Your task to perform on an android device: What time is it in Beijing? Image 0: 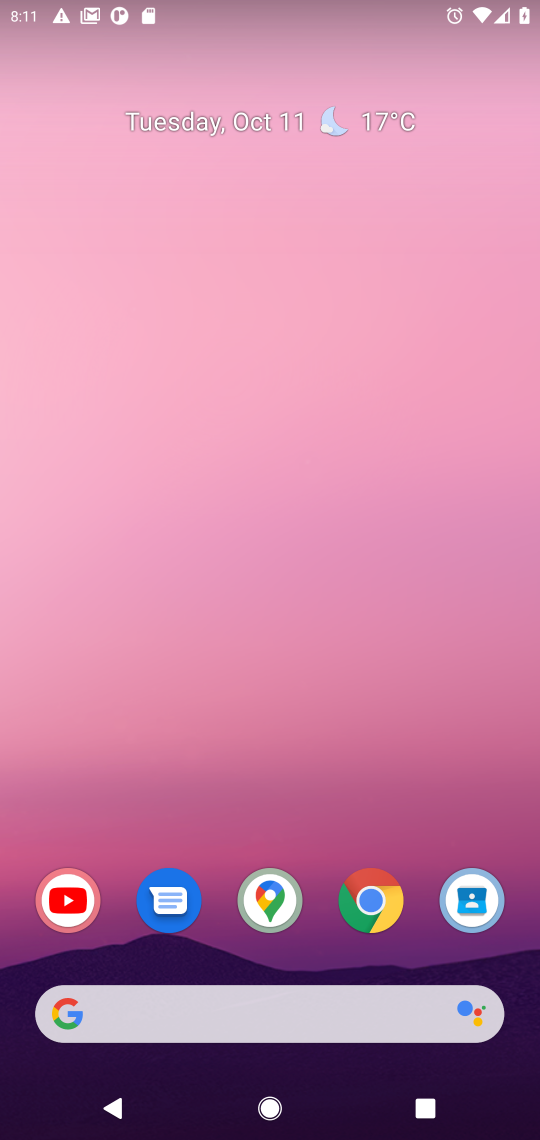
Step 0: click (367, 896)
Your task to perform on an android device: What time is it in Beijing? Image 1: 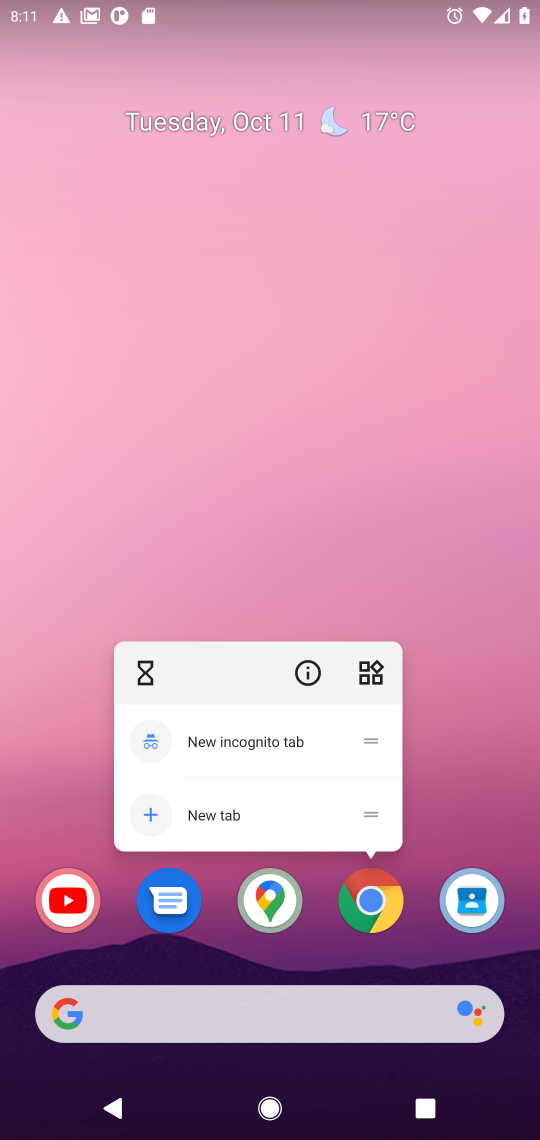
Step 1: click (379, 890)
Your task to perform on an android device: What time is it in Beijing? Image 2: 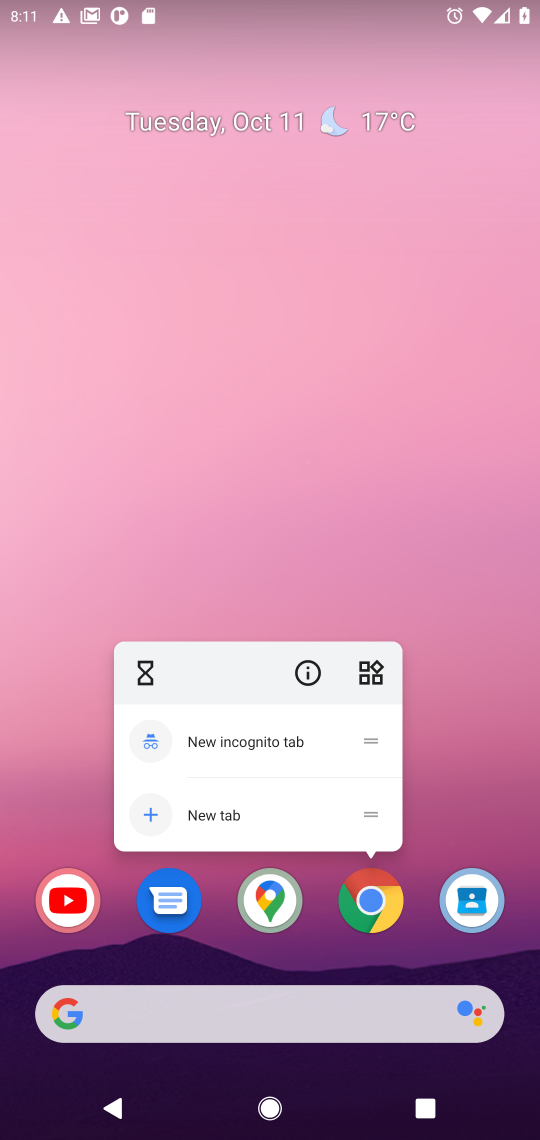
Step 2: click (378, 901)
Your task to perform on an android device: What time is it in Beijing? Image 3: 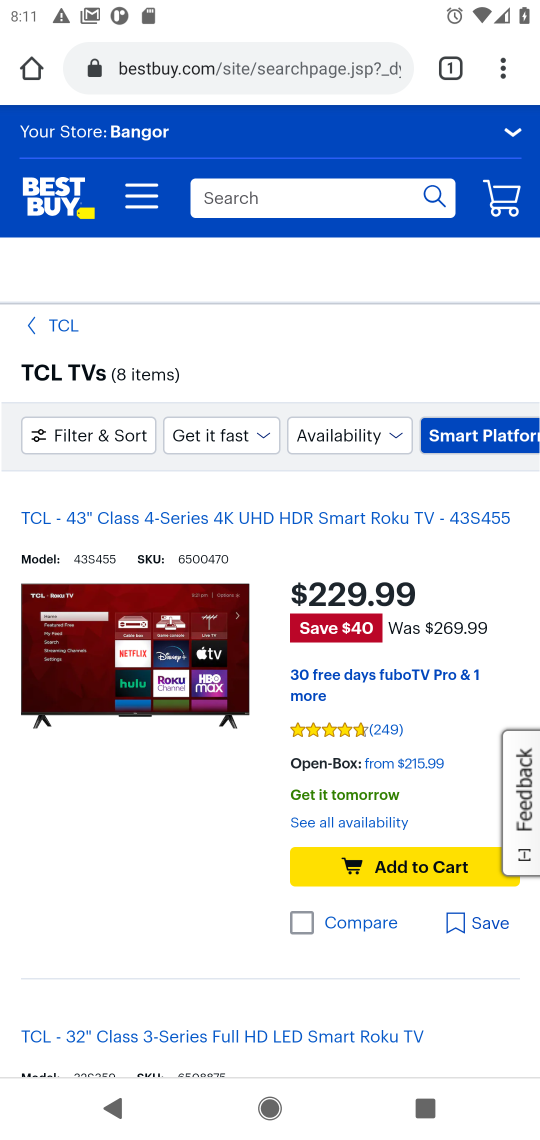
Step 3: click (301, 59)
Your task to perform on an android device: What time is it in Beijing? Image 4: 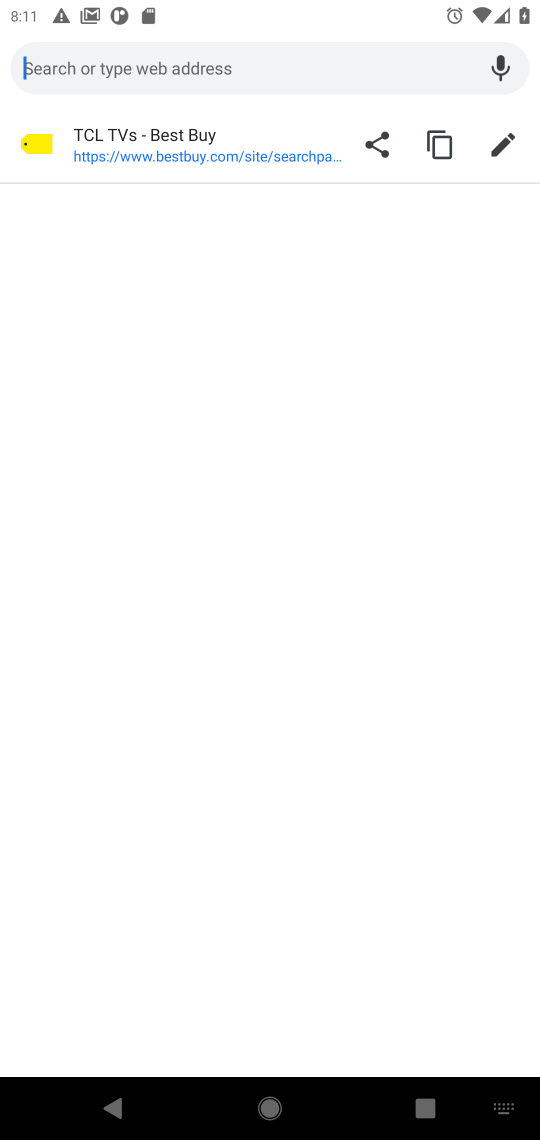
Step 4: type "What time is it in Beijing"
Your task to perform on an android device: What time is it in Beijing? Image 5: 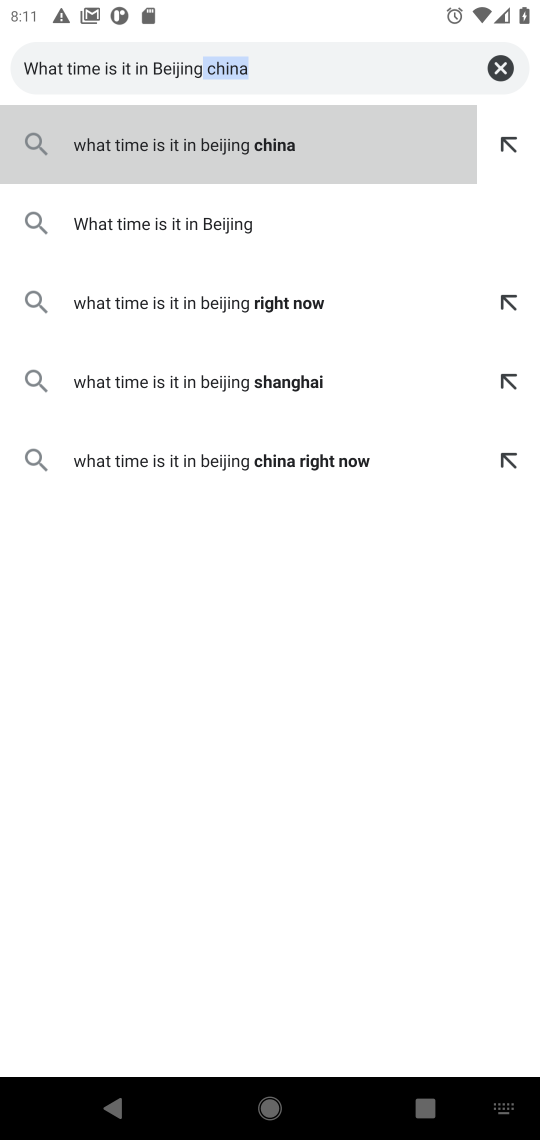
Step 5: press enter
Your task to perform on an android device: What time is it in Beijing? Image 6: 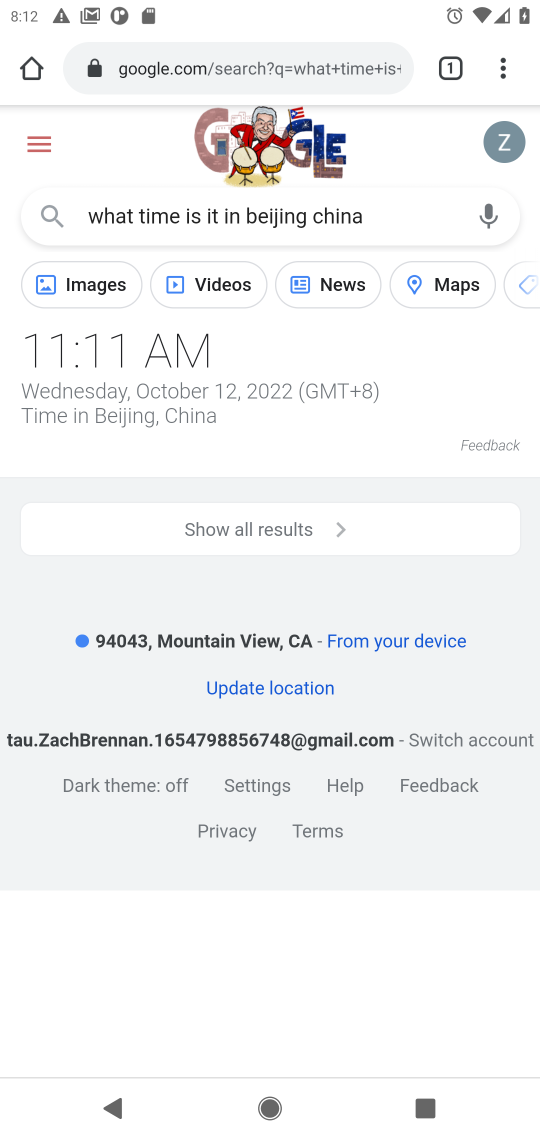
Step 6: task complete